Your task to perform on an android device: turn off translation in the chrome app Image 0: 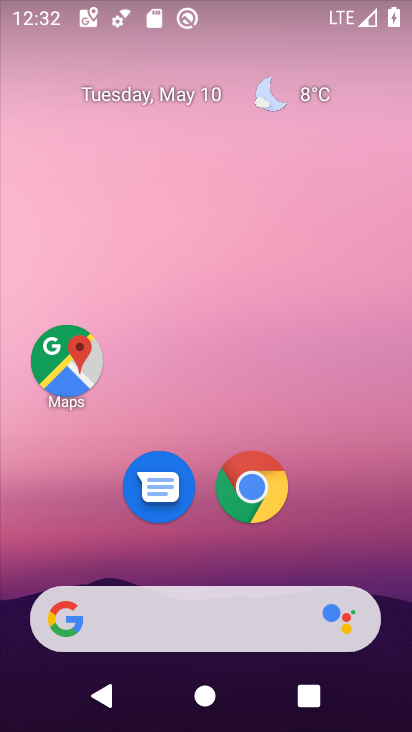
Step 0: click (250, 484)
Your task to perform on an android device: turn off translation in the chrome app Image 1: 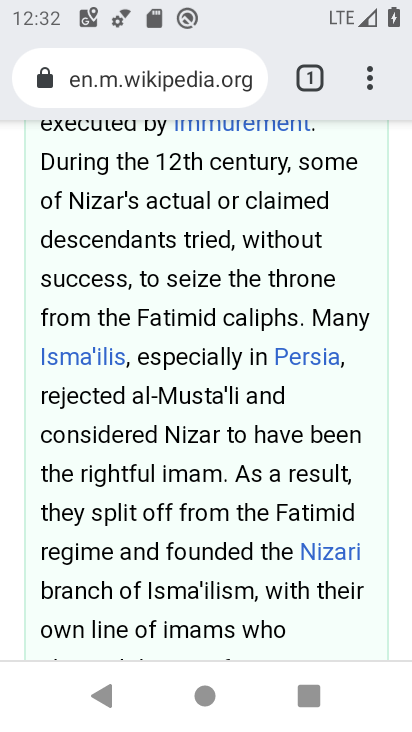
Step 1: click (369, 70)
Your task to perform on an android device: turn off translation in the chrome app Image 2: 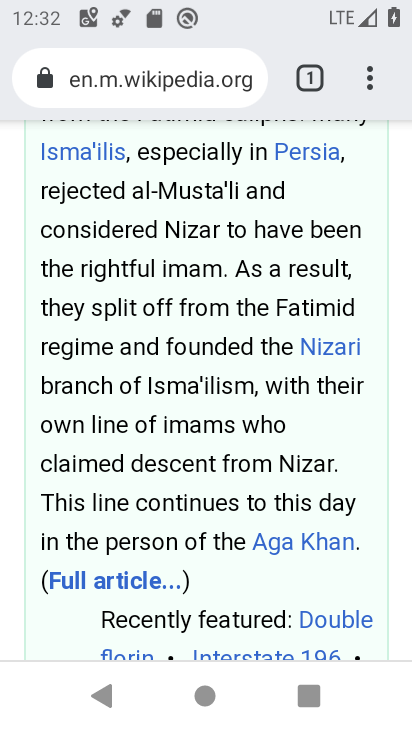
Step 2: click (363, 70)
Your task to perform on an android device: turn off translation in the chrome app Image 3: 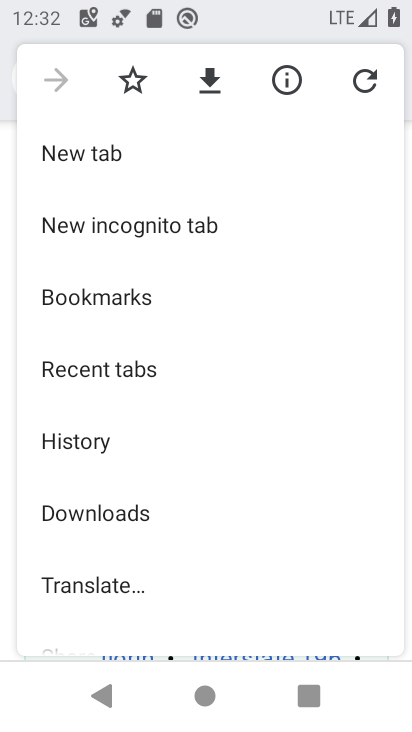
Step 3: drag from (178, 595) to (199, 194)
Your task to perform on an android device: turn off translation in the chrome app Image 4: 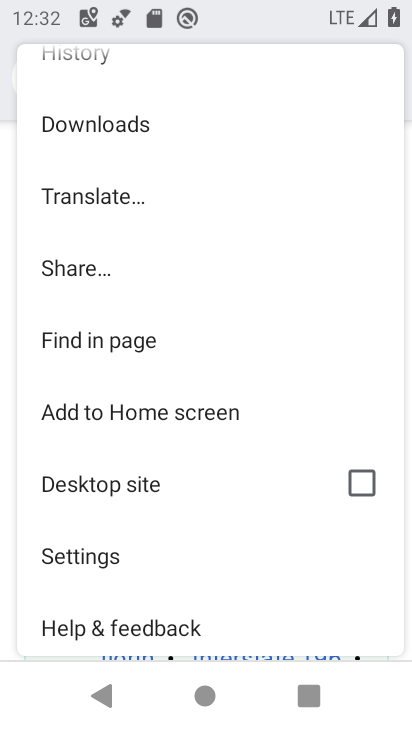
Step 4: click (132, 554)
Your task to perform on an android device: turn off translation in the chrome app Image 5: 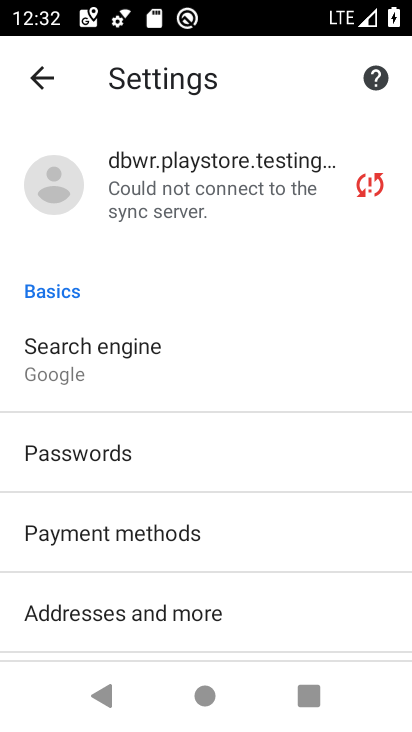
Step 5: drag from (239, 610) to (274, 212)
Your task to perform on an android device: turn off translation in the chrome app Image 6: 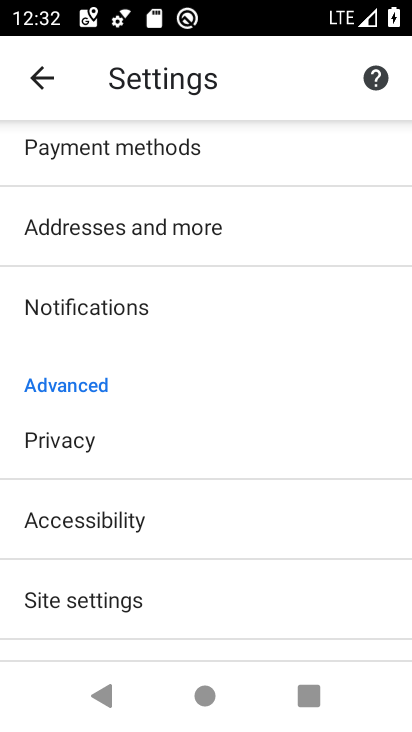
Step 6: drag from (178, 605) to (211, 264)
Your task to perform on an android device: turn off translation in the chrome app Image 7: 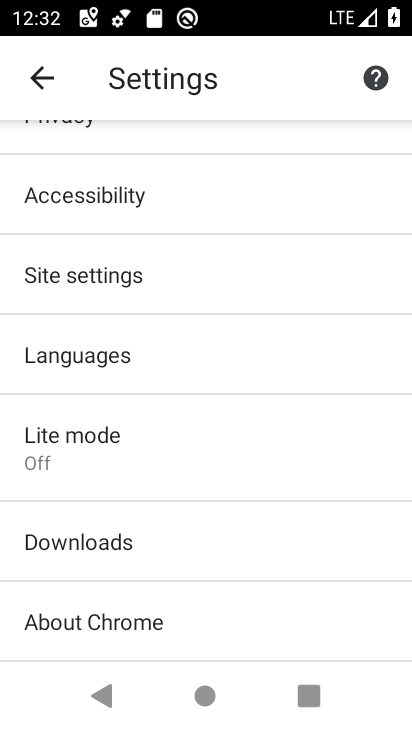
Step 7: click (145, 355)
Your task to perform on an android device: turn off translation in the chrome app Image 8: 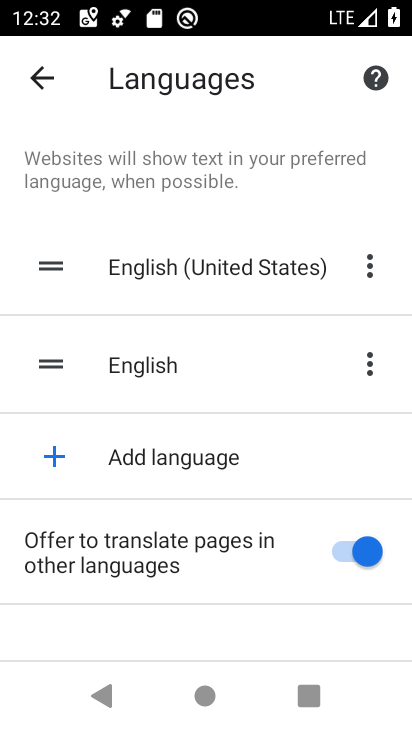
Step 8: click (348, 551)
Your task to perform on an android device: turn off translation in the chrome app Image 9: 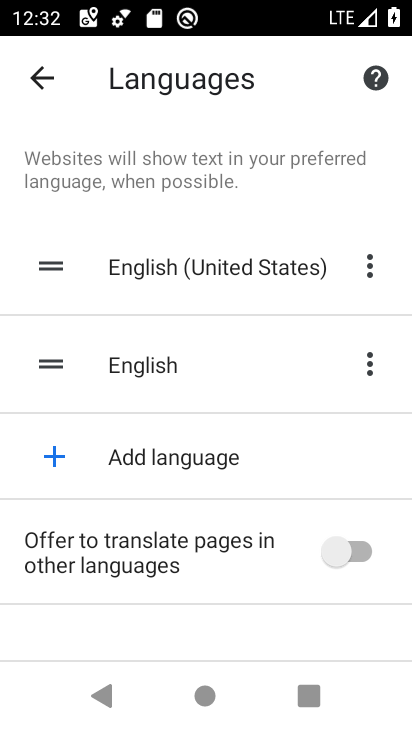
Step 9: task complete